Your task to perform on an android device: change timer sound Image 0: 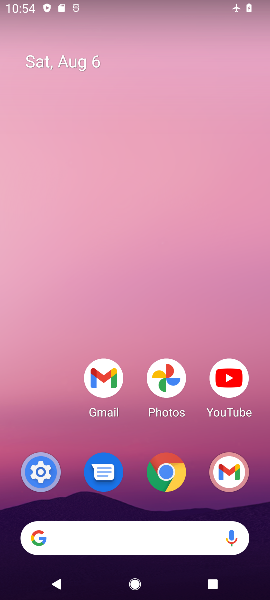
Step 0: press back button
Your task to perform on an android device: change timer sound Image 1: 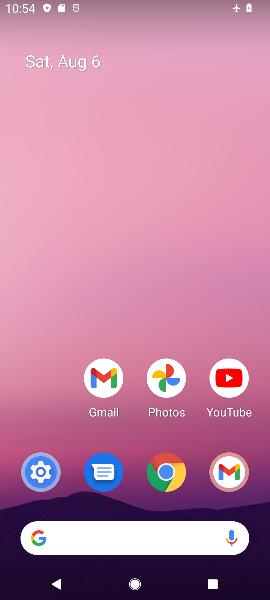
Step 1: drag from (130, 521) to (89, 225)
Your task to perform on an android device: change timer sound Image 2: 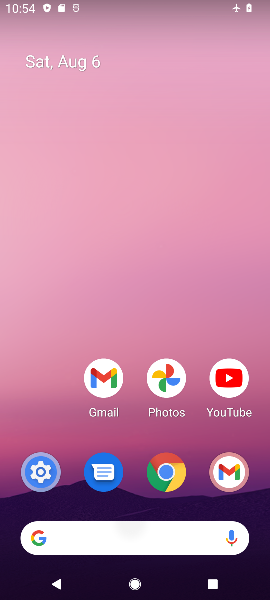
Step 2: drag from (118, 547) to (87, 197)
Your task to perform on an android device: change timer sound Image 3: 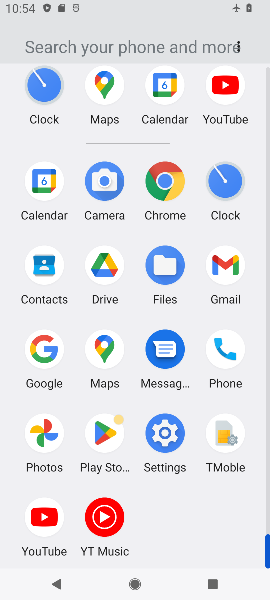
Step 3: click (212, 173)
Your task to perform on an android device: change timer sound Image 4: 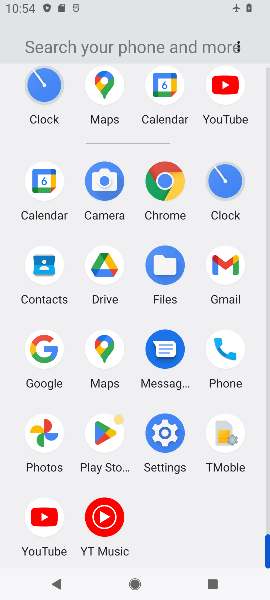
Step 4: click (212, 172)
Your task to perform on an android device: change timer sound Image 5: 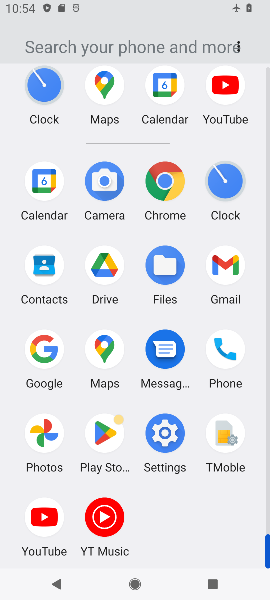
Step 5: click (212, 172)
Your task to perform on an android device: change timer sound Image 6: 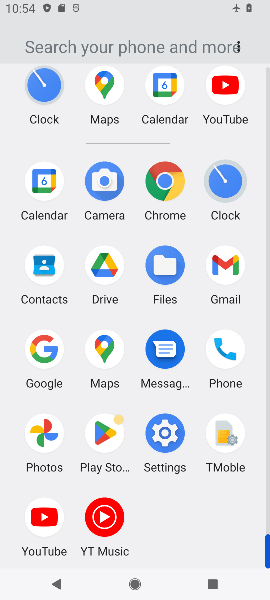
Step 6: click (213, 171)
Your task to perform on an android device: change timer sound Image 7: 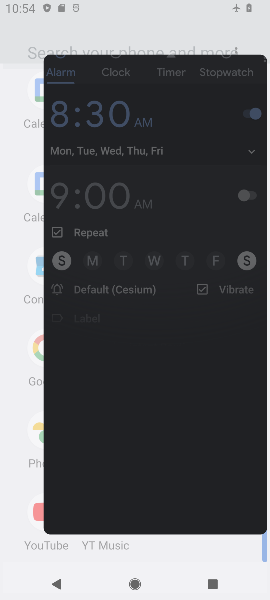
Step 7: click (215, 172)
Your task to perform on an android device: change timer sound Image 8: 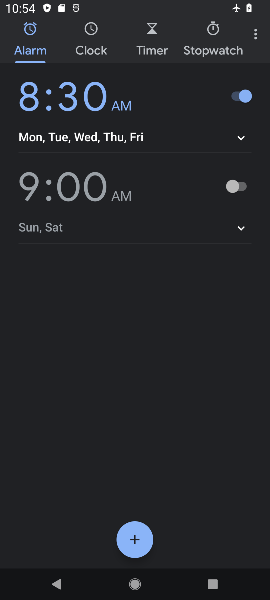
Step 8: click (164, 43)
Your task to perform on an android device: change timer sound Image 9: 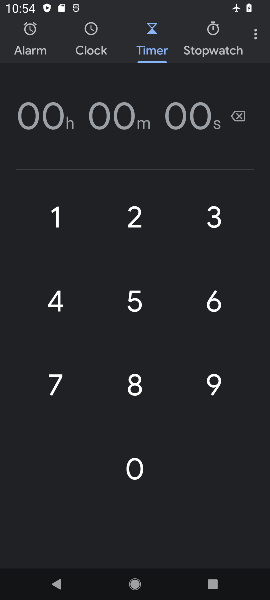
Step 9: click (258, 36)
Your task to perform on an android device: change timer sound Image 10: 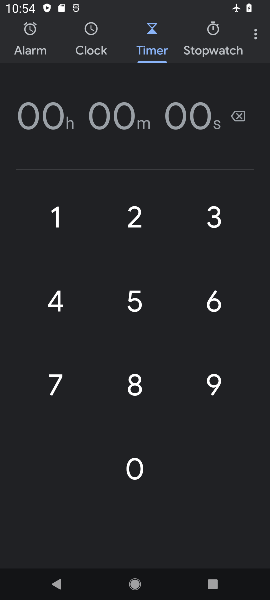
Step 10: click (247, 29)
Your task to perform on an android device: change timer sound Image 11: 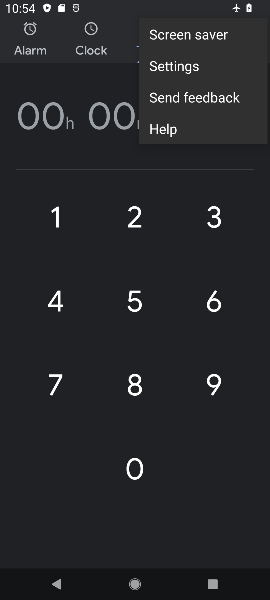
Step 11: click (167, 56)
Your task to perform on an android device: change timer sound Image 12: 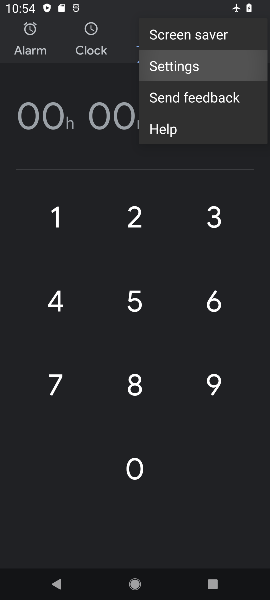
Step 12: click (174, 58)
Your task to perform on an android device: change timer sound Image 13: 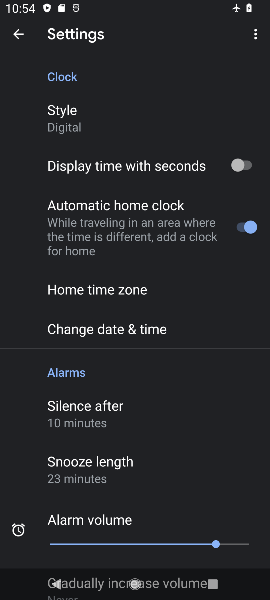
Step 13: click (116, 323)
Your task to perform on an android device: change timer sound Image 14: 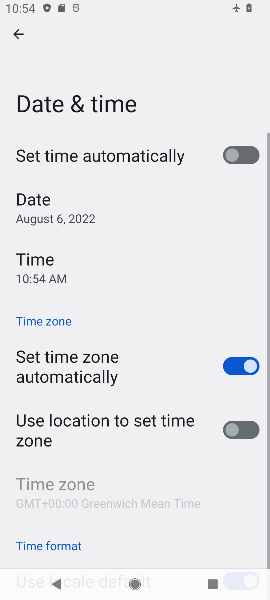
Step 14: click (16, 27)
Your task to perform on an android device: change timer sound Image 15: 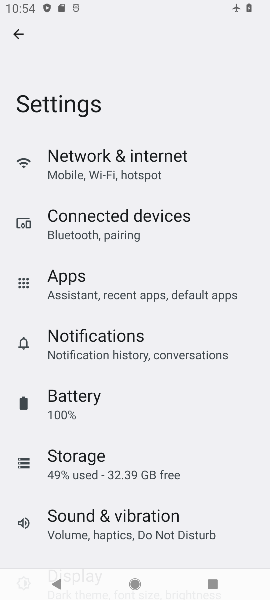
Step 15: click (14, 34)
Your task to perform on an android device: change timer sound Image 16: 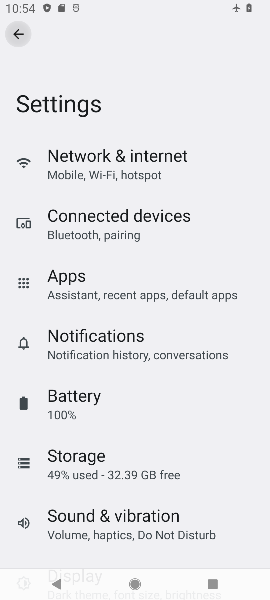
Step 16: press back button
Your task to perform on an android device: change timer sound Image 17: 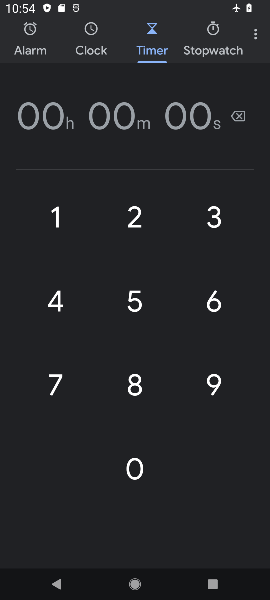
Step 17: click (249, 41)
Your task to perform on an android device: change timer sound Image 18: 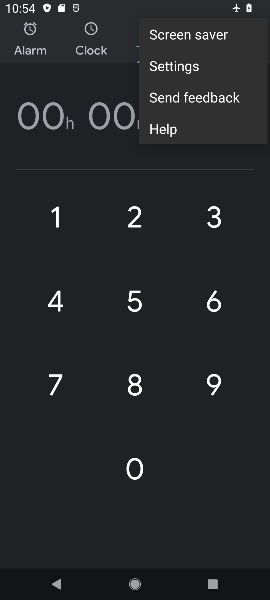
Step 18: click (157, 69)
Your task to perform on an android device: change timer sound Image 19: 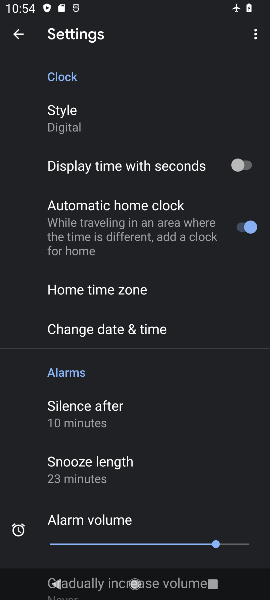
Step 19: drag from (119, 451) to (107, 110)
Your task to perform on an android device: change timer sound Image 20: 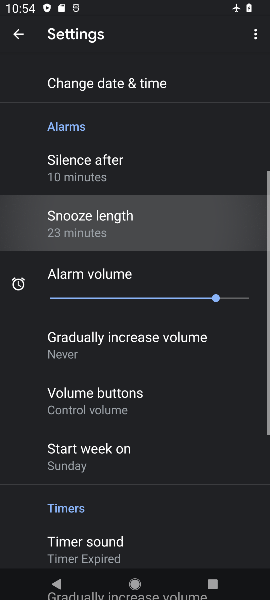
Step 20: drag from (166, 415) to (135, 152)
Your task to perform on an android device: change timer sound Image 21: 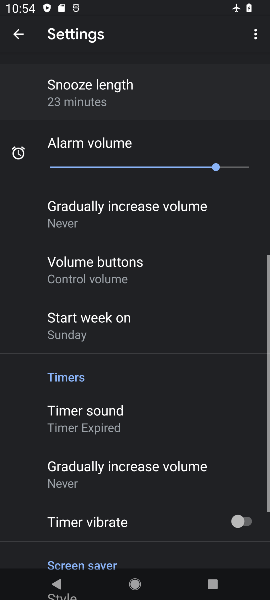
Step 21: drag from (161, 402) to (130, 188)
Your task to perform on an android device: change timer sound Image 22: 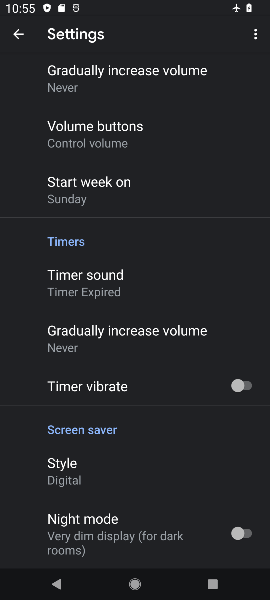
Step 22: click (80, 291)
Your task to perform on an android device: change timer sound Image 23: 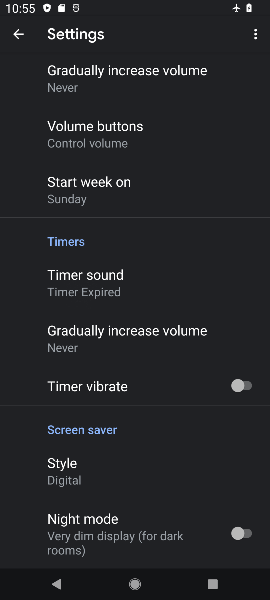
Step 23: click (77, 290)
Your task to perform on an android device: change timer sound Image 24: 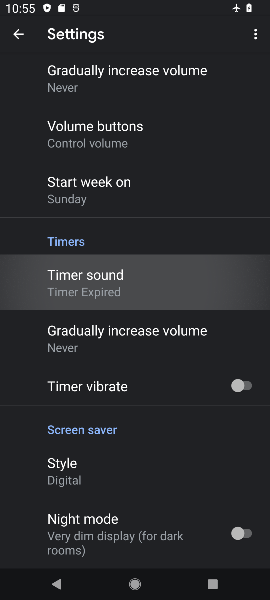
Step 24: click (77, 289)
Your task to perform on an android device: change timer sound Image 25: 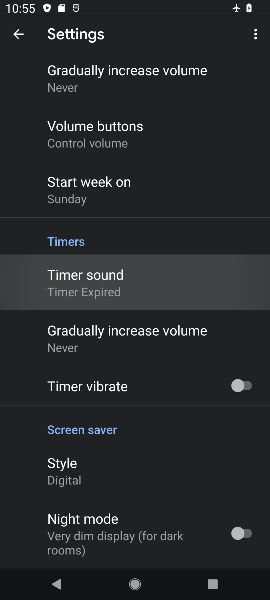
Step 25: click (83, 284)
Your task to perform on an android device: change timer sound Image 26: 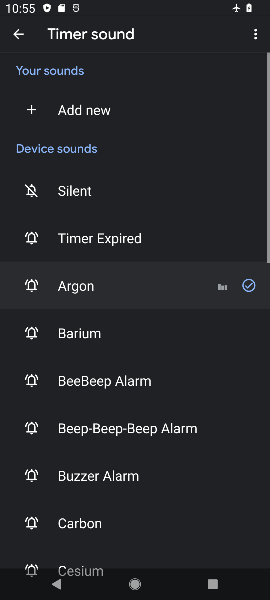
Step 26: click (41, 385)
Your task to perform on an android device: change timer sound Image 27: 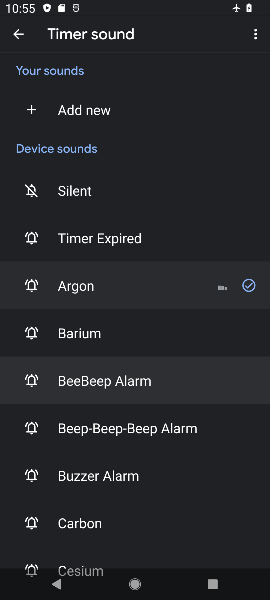
Step 27: click (33, 378)
Your task to perform on an android device: change timer sound Image 28: 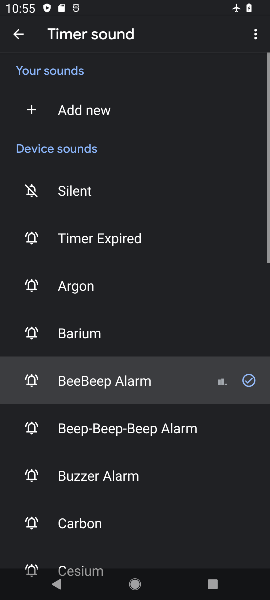
Step 28: task complete